Your task to perform on an android device: toggle improve location accuracy Image 0: 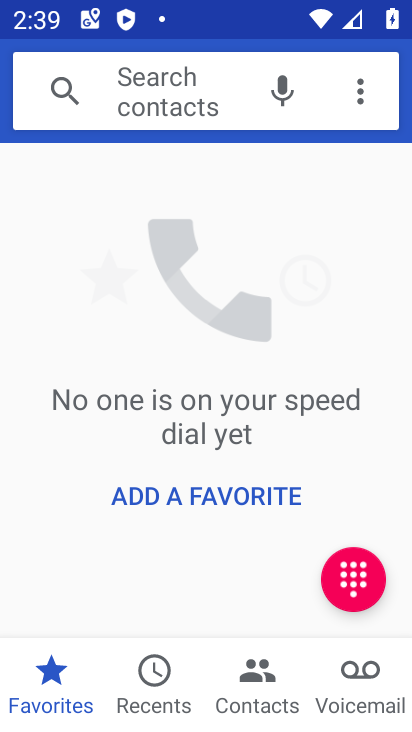
Step 0: press home button
Your task to perform on an android device: toggle improve location accuracy Image 1: 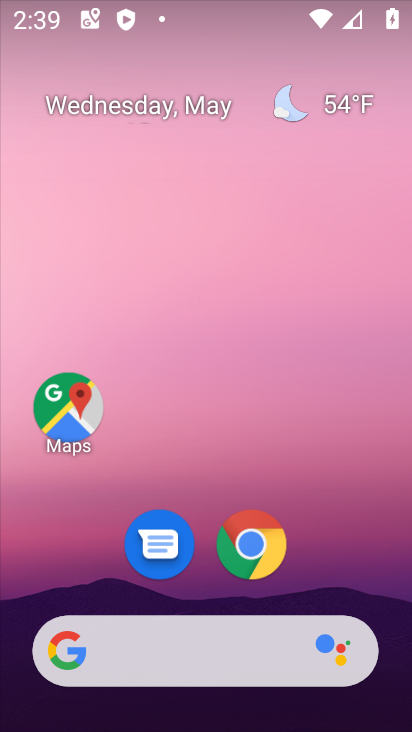
Step 1: drag from (331, 535) to (191, 40)
Your task to perform on an android device: toggle improve location accuracy Image 2: 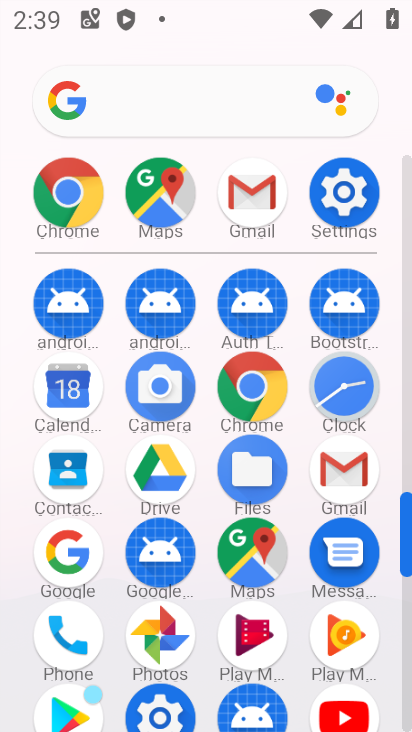
Step 2: click (359, 269)
Your task to perform on an android device: toggle improve location accuracy Image 3: 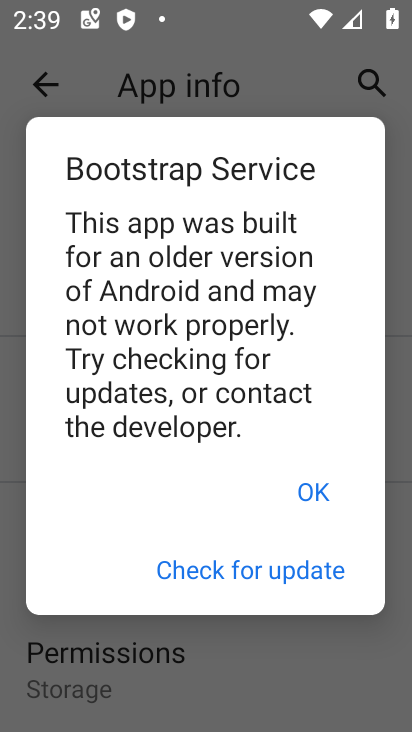
Step 3: press back button
Your task to perform on an android device: toggle improve location accuracy Image 4: 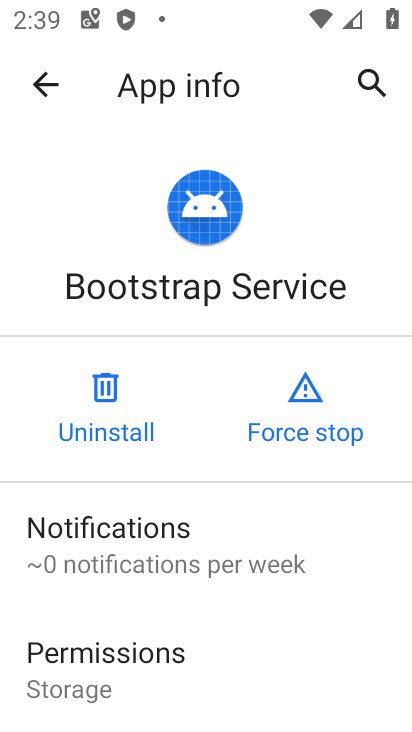
Step 4: press back button
Your task to perform on an android device: toggle improve location accuracy Image 5: 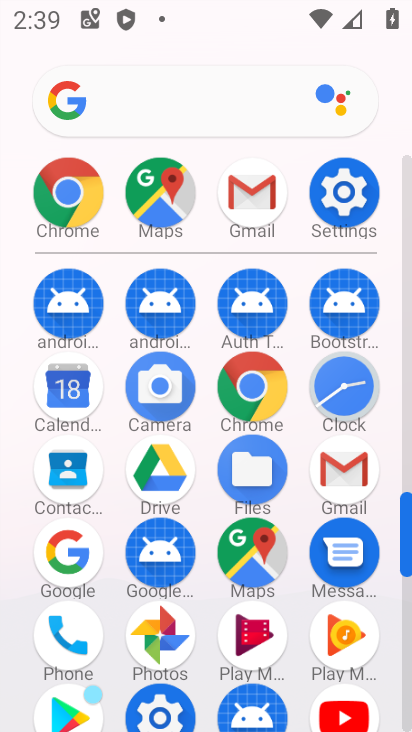
Step 5: click (340, 221)
Your task to perform on an android device: toggle improve location accuracy Image 6: 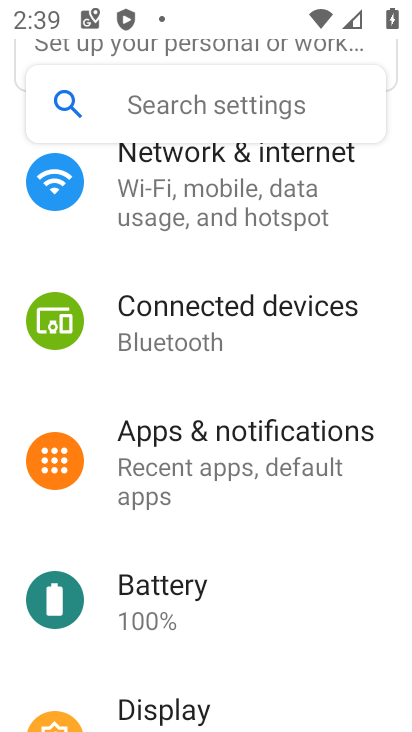
Step 6: drag from (230, 560) to (133, 313)
Your task to perform on an android device: toggle improve location accuracy Image 7: 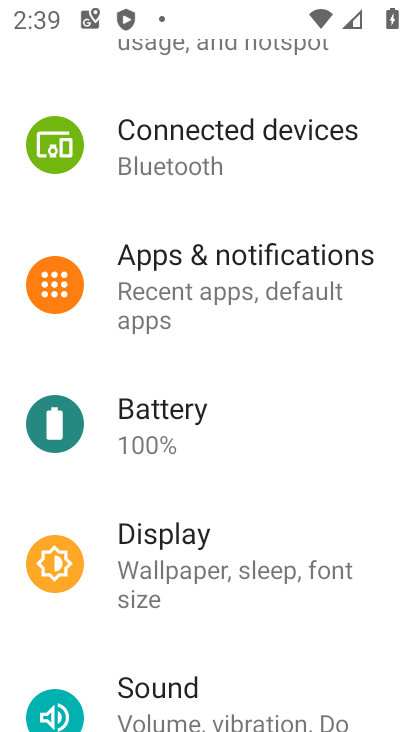
Step 7: drag from (157, 565) to (107, 359)
Your task to perform on an android device: toggle improve location accuracy Image 8: 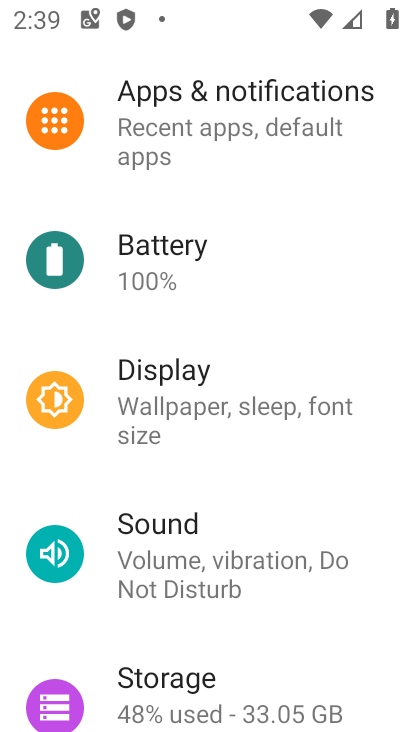
Step 8: drag from (140, 547) to (78, 310)
Your task to perform on an android device: toggle improve location accuracy Image 9: 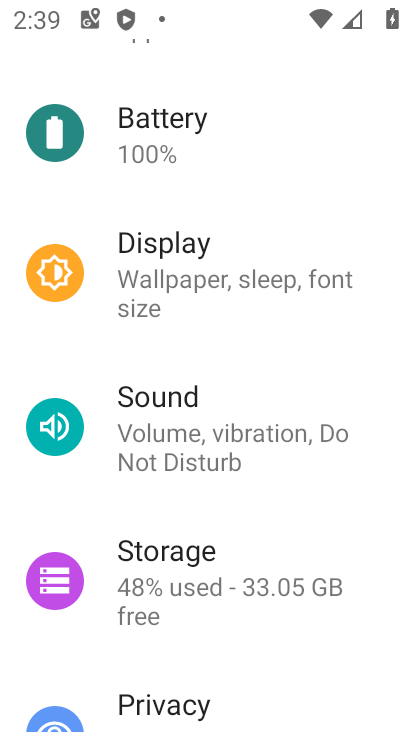
Step 9: drag from (169, 482) to (118, 258)
Your task to perform on an android device: toggle improve location accuracy Image 10: 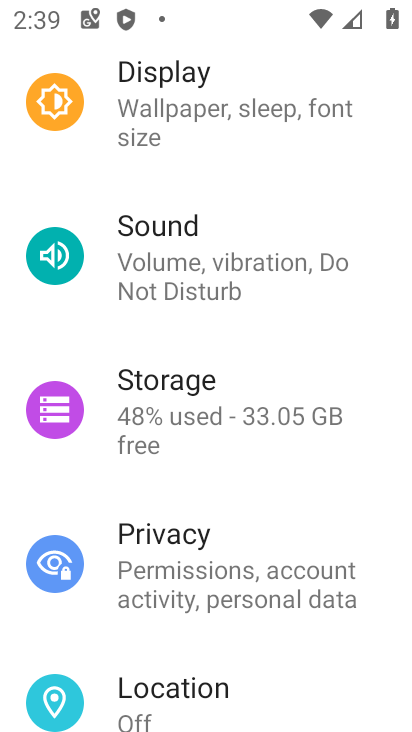
Step 10: click (208, 652)
Your task to perform on an android device: toggle improve location accuracy Image 11: 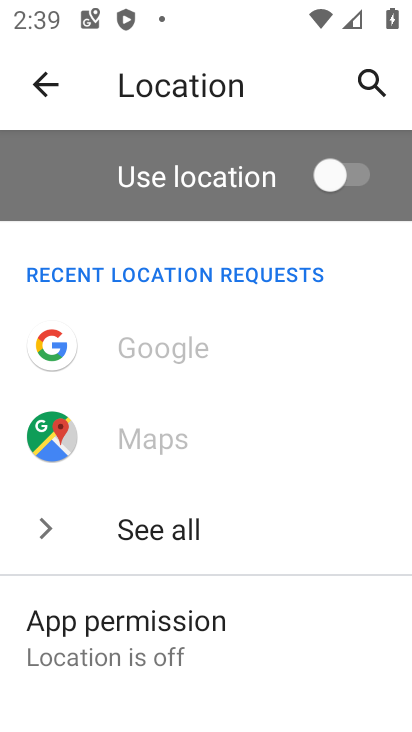
Step 11: drag from (217, 689) to (51, 75)
Your task to perform on an android device: toggle improve location accuracy Image 12: 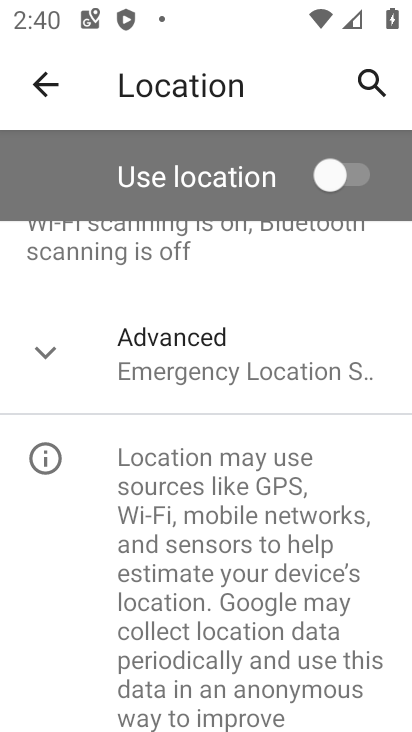
Step 12: click (94, 339)
Your task to perform on an android device: toggle improve location accuracy Image 13: 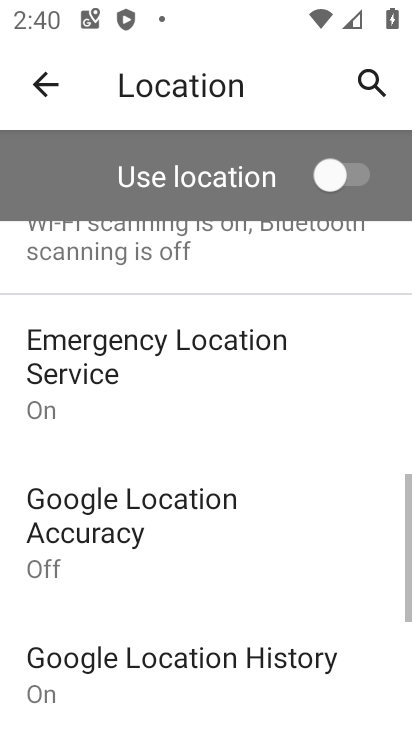
Step 13: drag from (97, 520) to (57, 310)
Your task to perform on an android device: toggle improve location accuracy Image 14: 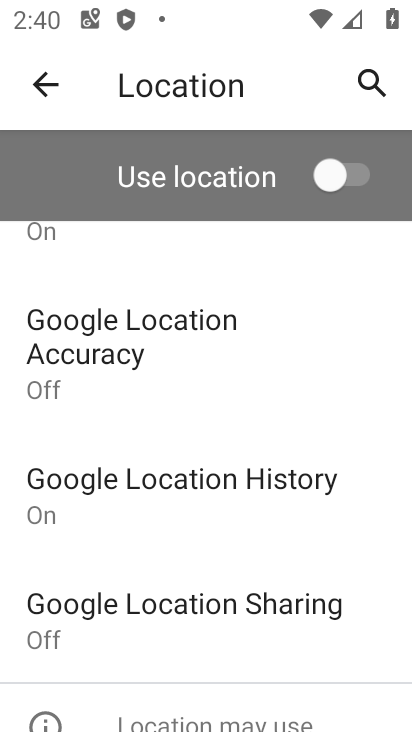
Step 14: click (66, 400)
Your task to perform on an android device: toggle improve location accuracy Image 15: 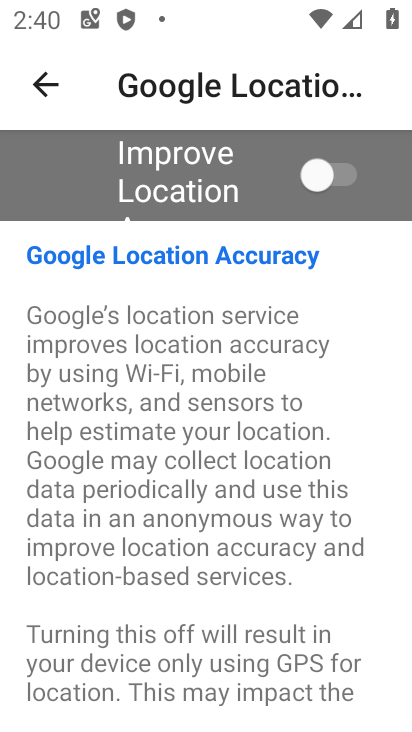
Step 15: click (267, 181)
Your task to perform on an android device: toggle improve location accuracy Image 16: 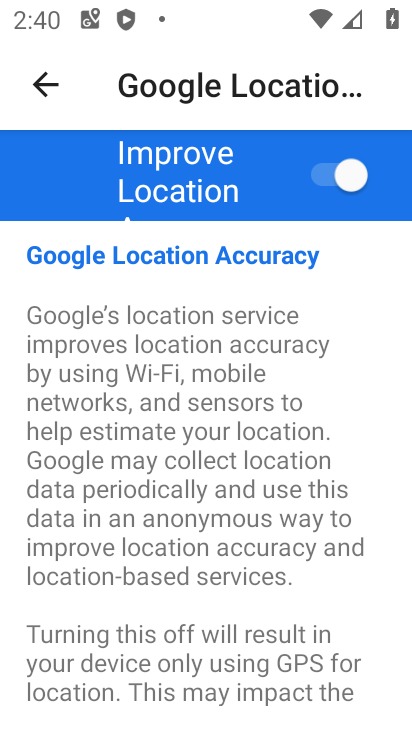
Step 16: task complete